Your task to perform on an android device: Open Chrome and go to settings Image 0: 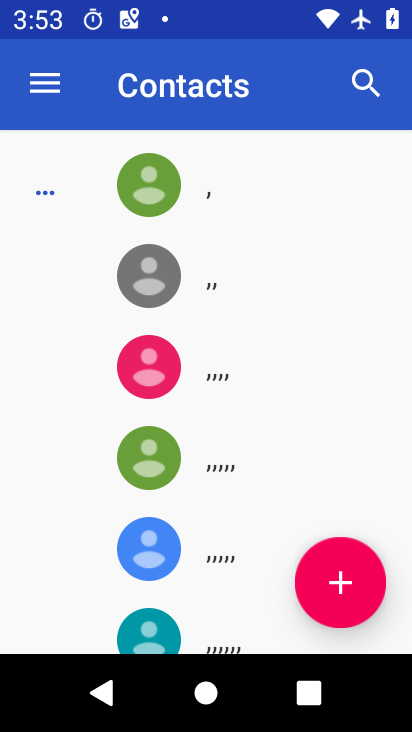
Step 0: press home button
Your task to perform on an android device: Open Chrome and go to settings Image 1: 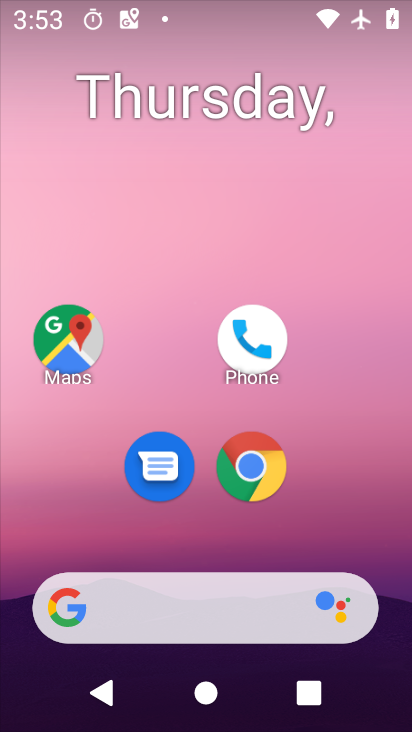
Step 1: drag from (192, 514) to (174, 0)
Your task to perform on an android device: Open Chrome and go to settings Image 2: 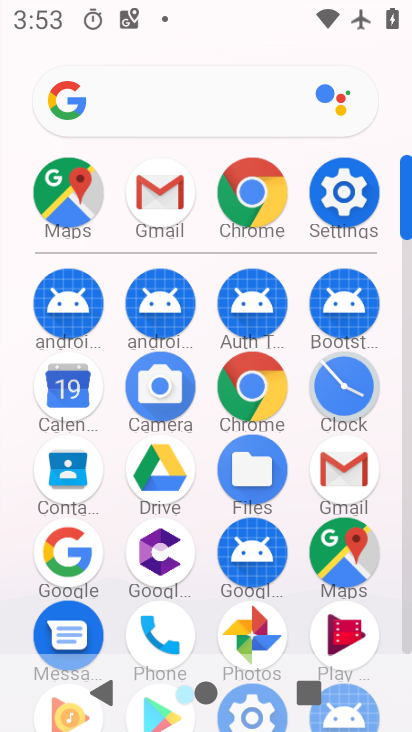
Step 2: click (263, 365)
Your task to perform on an android device: Open Chrome and go to settings Image 3: 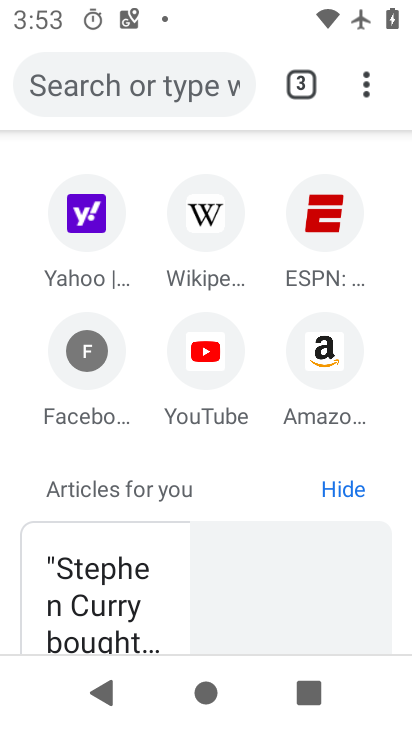
Step 3: click (357, 88)
Your task to perform on an android device: Open Chrome and go to settings Image 4: 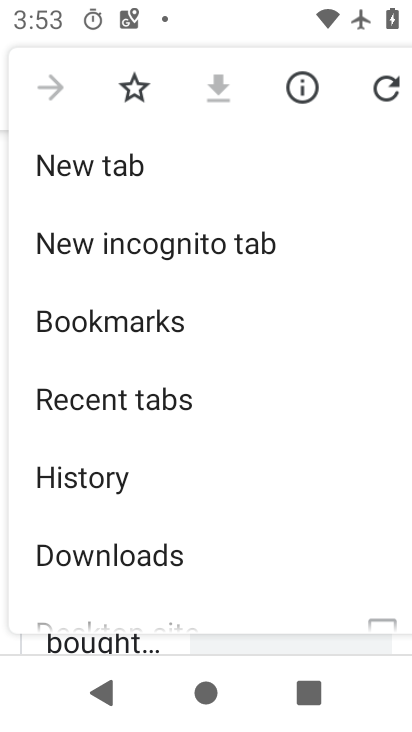
Step 4: drag from (94, 565) to (231, 0)
Your task to perform on an android device: Open Chrome and go to settings Image 5: 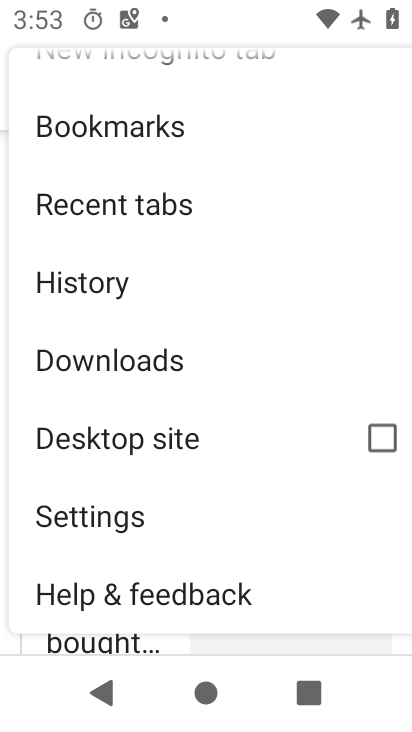
Step 5: click (114, 520)
Your task to perform on an android device: Open Chrome and go to settings Image 6: 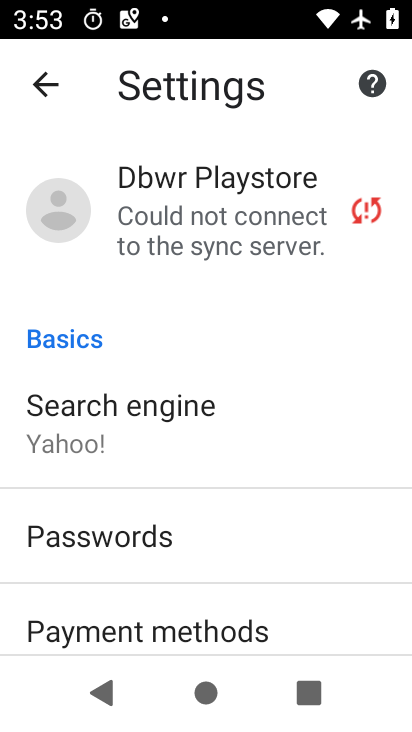
Step 6: task complete